Your task to perform on an android device: Go to network settings Image 0: 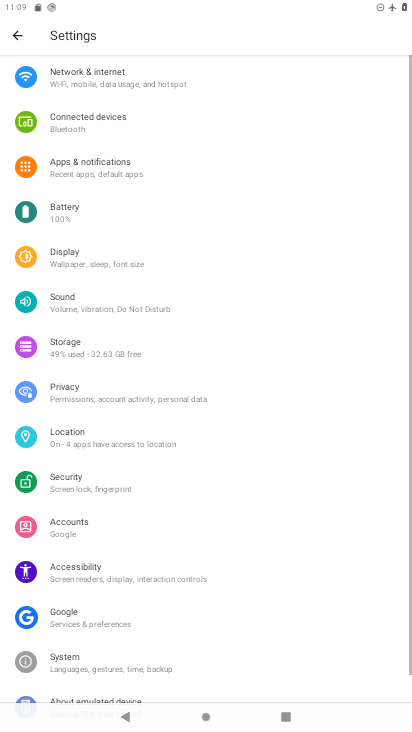
Step 0: click (54, 75)
Your task to perform on an android device: Go to network settings Image 1: 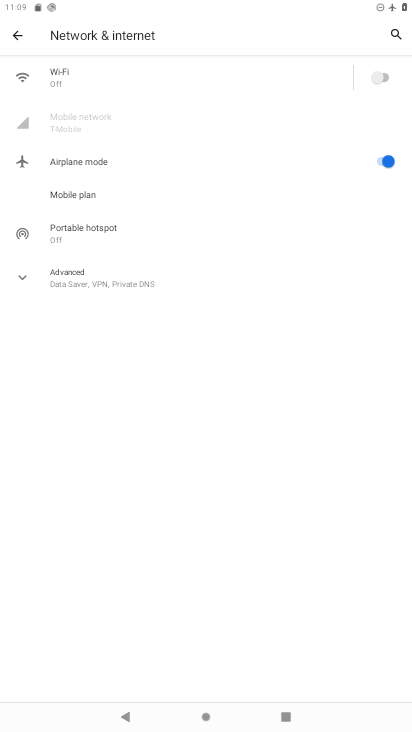
Step 1: click (15, 276)
Your task to perform on an android device: Go to network settings Image 2: 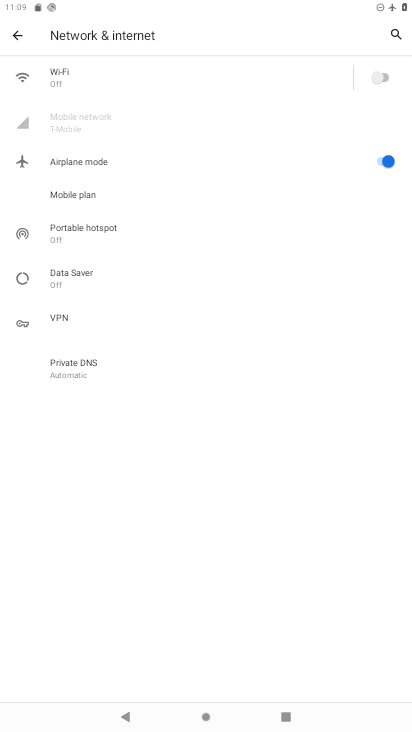
Step 2: task complete